Your task to perform on an android device: Open Chrome and go to settings Image 0: 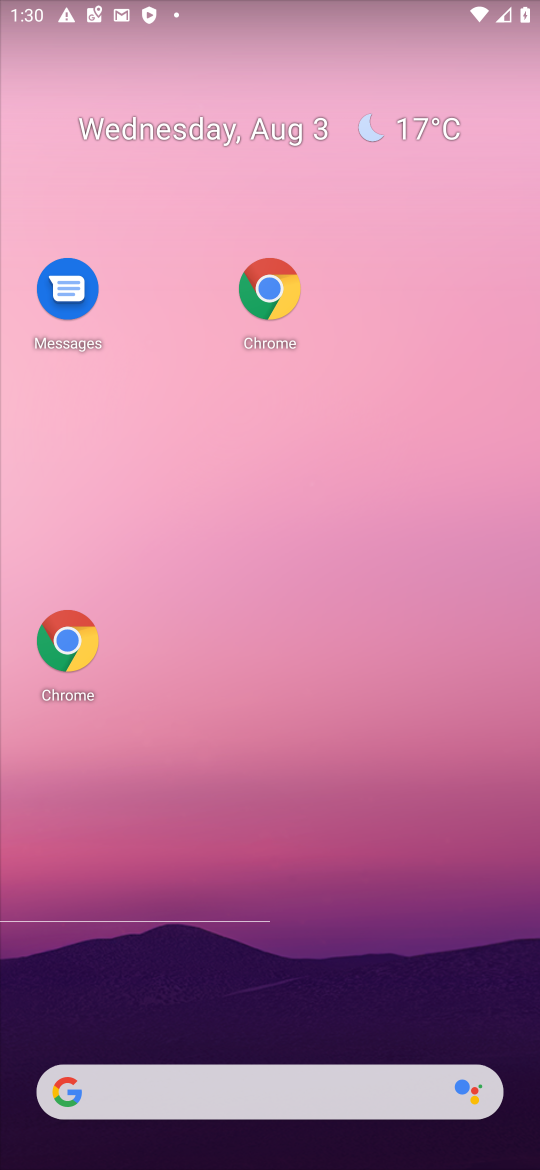
Step 0: click (64, 652)
Your task to perform on an android device: Open Chrome and go to settings Image 1: 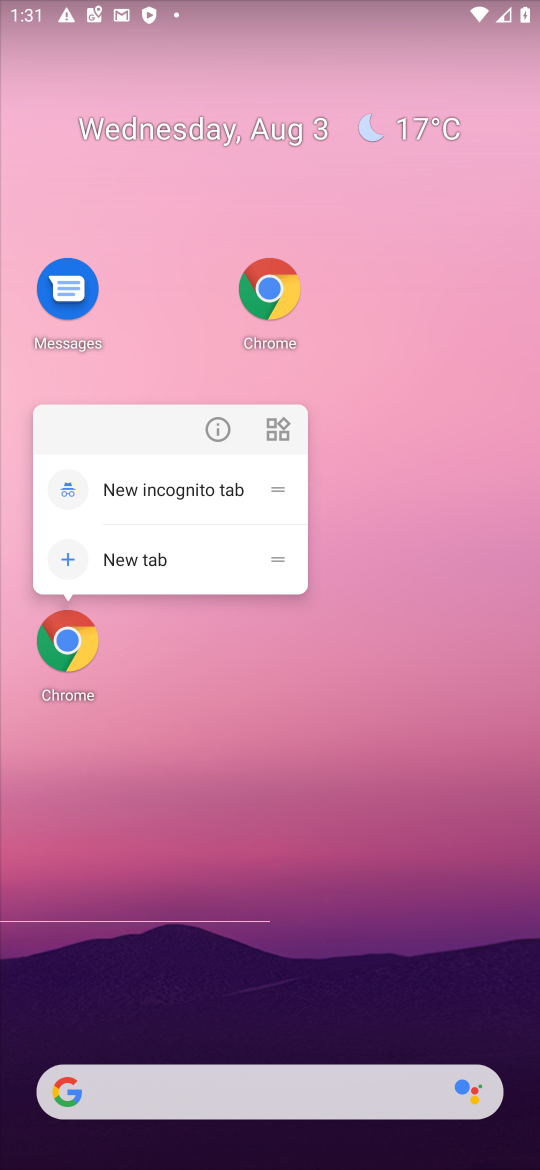
Step 1: click (64, 652)
Your task to perform on an android device: Open Chrome and go to settings Image 2: 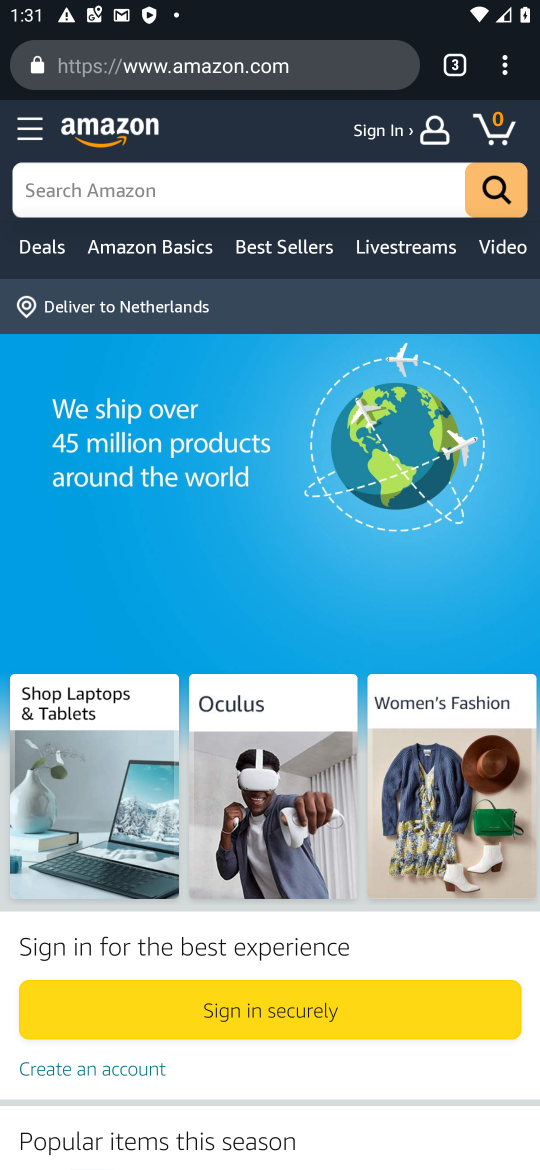
Step 2: click (513, 64)
Your task to perform on an android device: Open Chrome and go to settings Image 3: 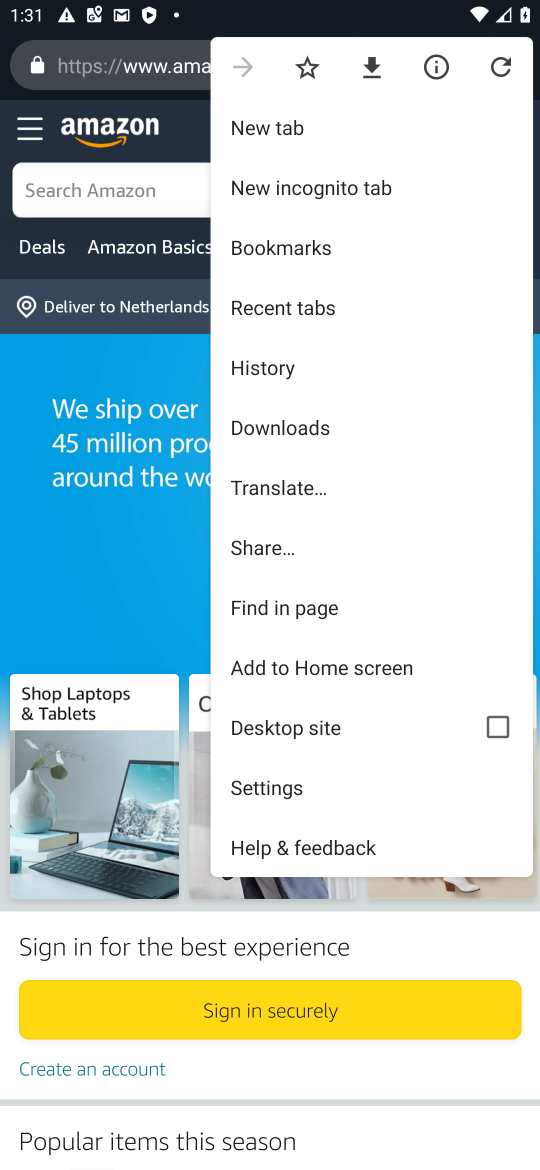
Step 3: click (287, 793)
Your task to perform on an android device: Open Chrome and go to settings Image 4: 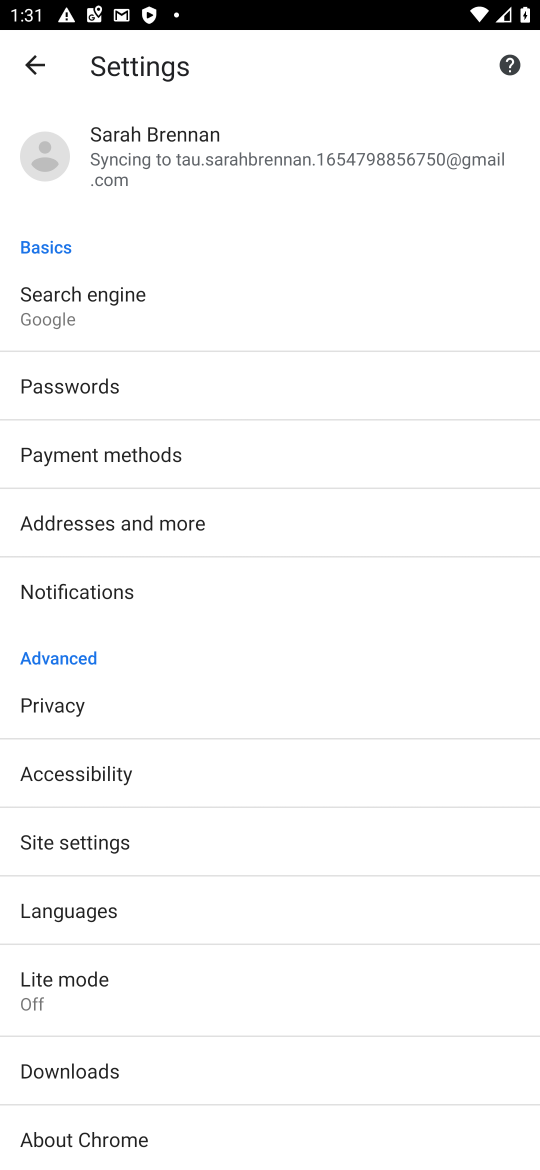
Step 4: task complete